Your task to perform on an android device: open a bookmark in the chrome app Image 0: 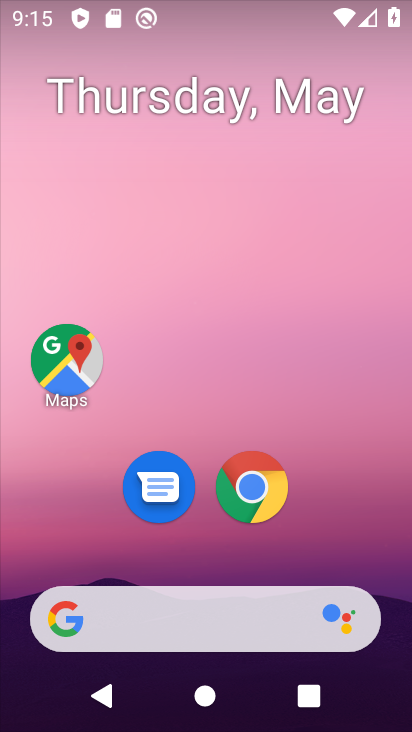
Step 0: click (262, 479)
Your task to perform on an android device: open a bookmark in the chrome app Image 1: 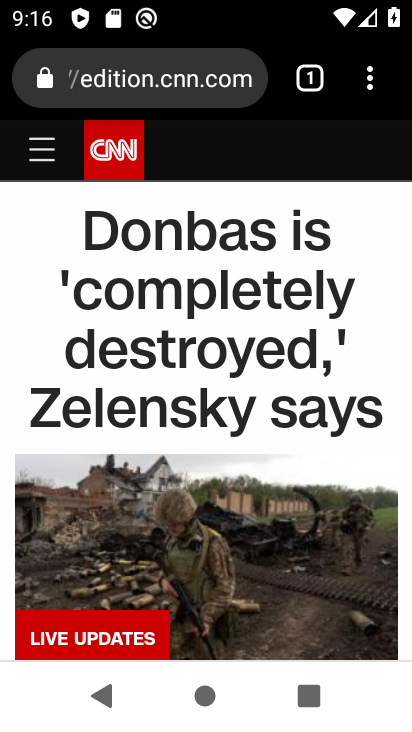
Step 1: task complete